Your task to perform on an android device: open chrome and create a bookmark for the current page Image 0: 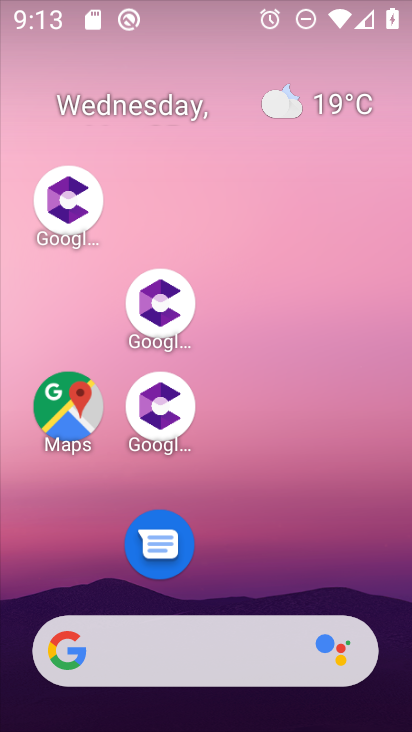
Step 0: drag from (315, 559) to (283, 93)
Your task to perform on an android device: open chrome and create a bookmark for the current page Image 1: 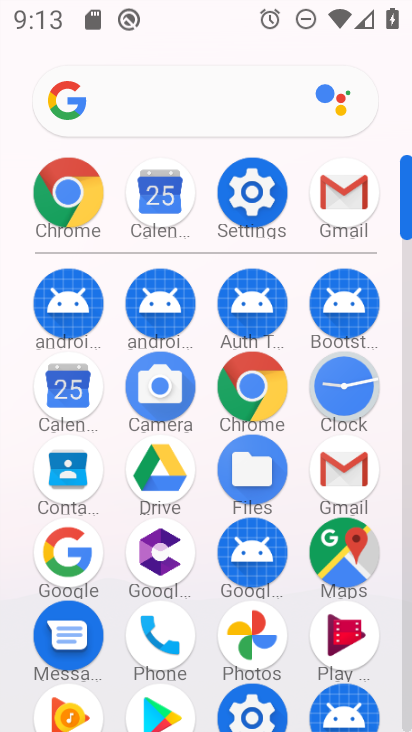
Step 1: click (54, 190)
Your task to perform on an android device: open chrome and create a bookmark for the current page Image 2: 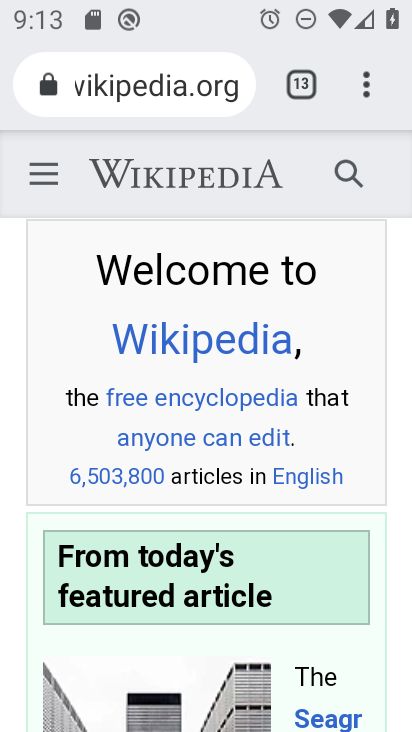
Step 2: click (361, 79)
Your task to perform on an android device: open chrome and create a bookmark for the current page Image 3: 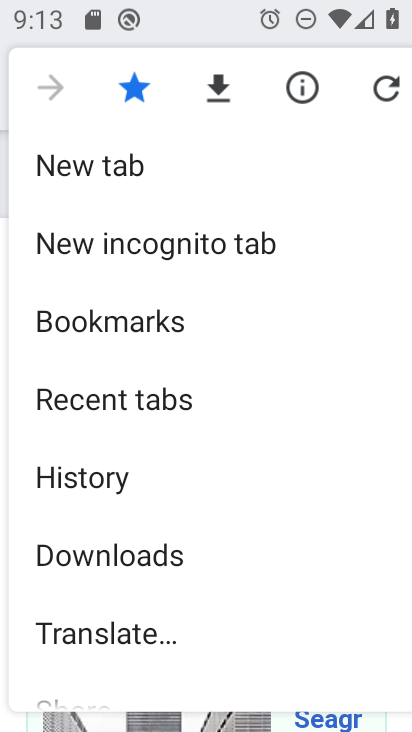
Step 3: task complete